Your task to perform on an android device: Open Google Maps Image 0: 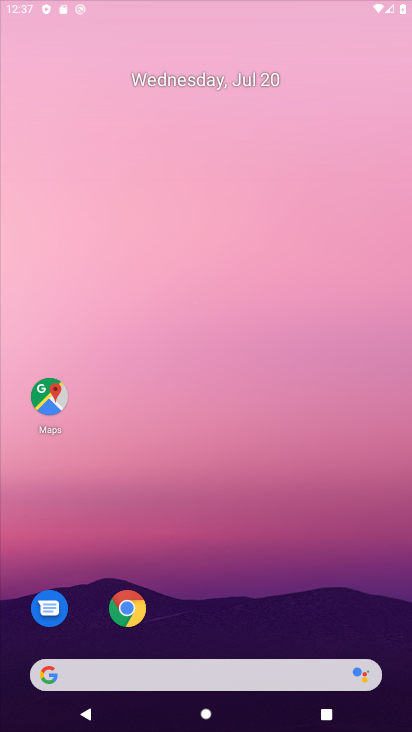
Step 0: drag from (193, 654) to (234, 140)
Your task to perform on an android device: Open Google Maps Image 1: 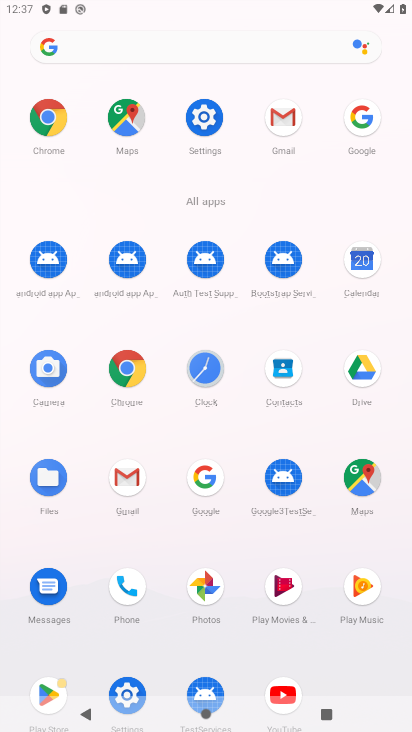
Step 1: click (352, 485)
Your task to perform on an android device: Open Google Maps Image 2: 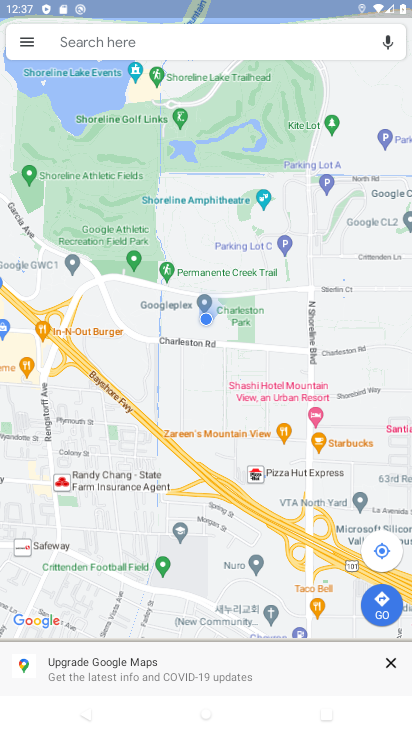
Step 2: task complete